Your task to perform on an android device: Do I have any events today? Image 0: 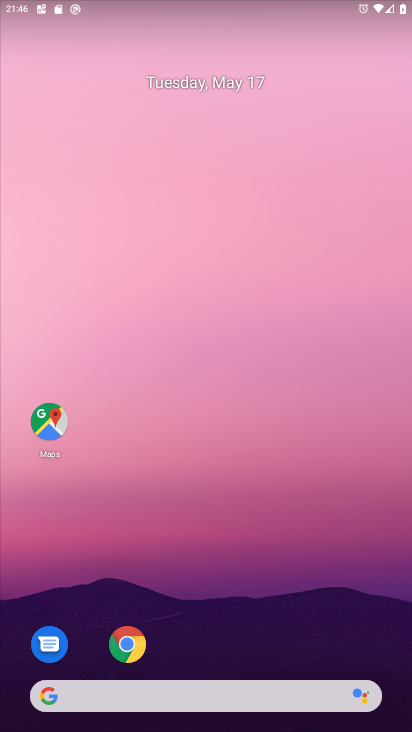
Step 0: drag from (244, 648) to (272, 95)
Your task to perform on an android device: Do I have any events today? Image 1: 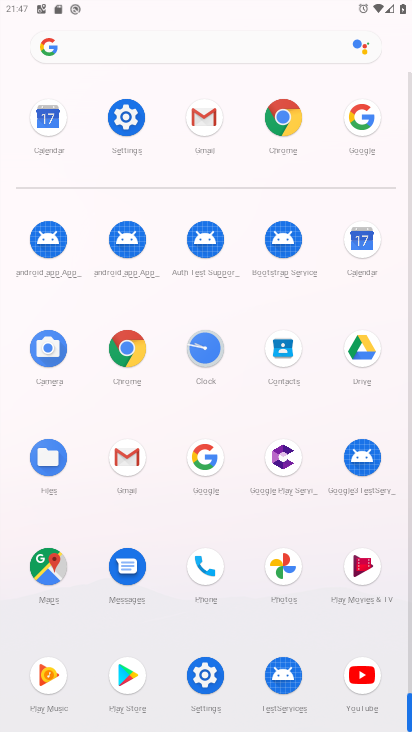
Step 1: click (359, 239)
Your task to perform on an android device: Do I have any events today? Image 2: 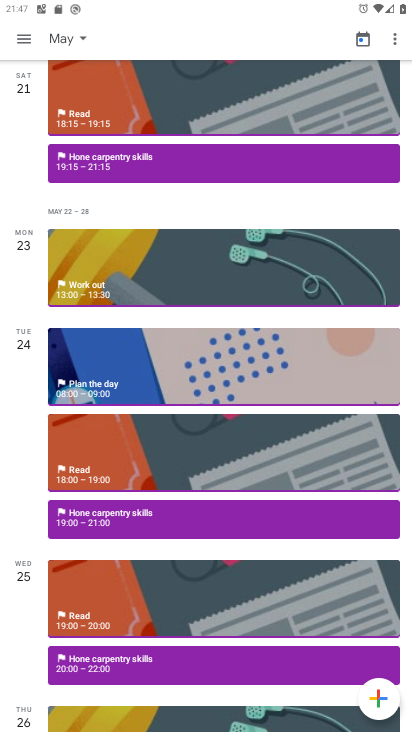
Step 2: drag from (33, 118) to (17, 726)
Your task to perform on an android device: Do I have any events today? Image 3: 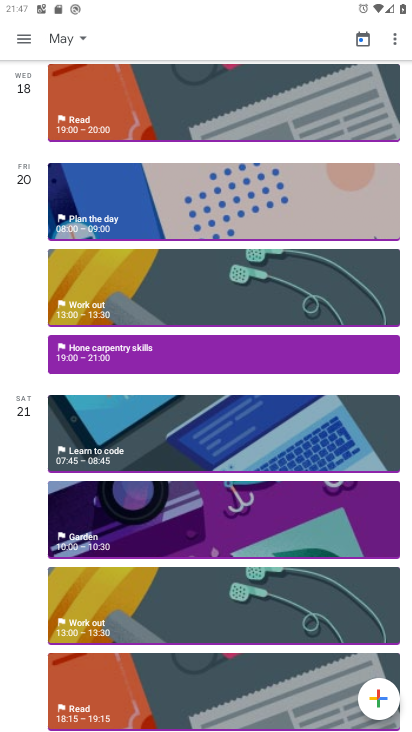
Step 3: drag from (33, 252) to (44, 700)
Your task to perform on an android device: Do I have any events today? Image 4: 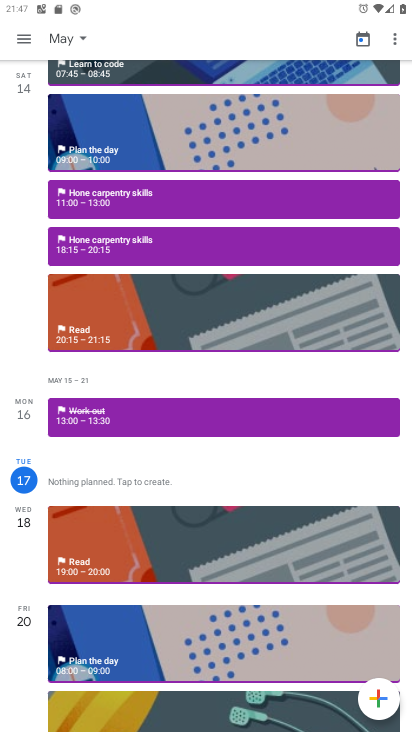
Step 4: click (27, 498)
Your task to perform on an android device: Do I have any events today? Image 5: 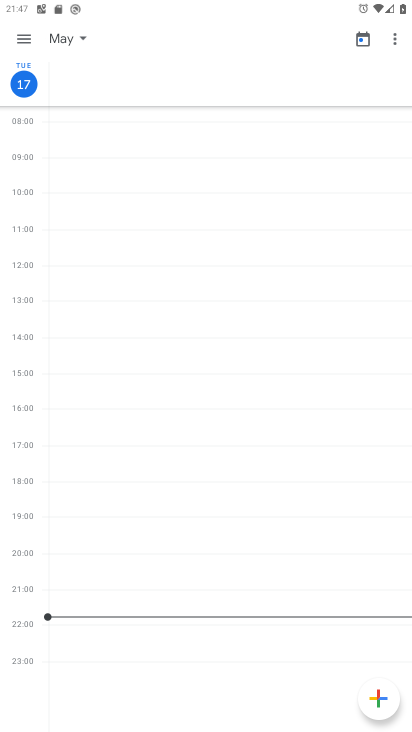
Step 5: drag from (26, 578) to (39, 398)
Your task to perform on an android device: Do I have any events today? Image 6: 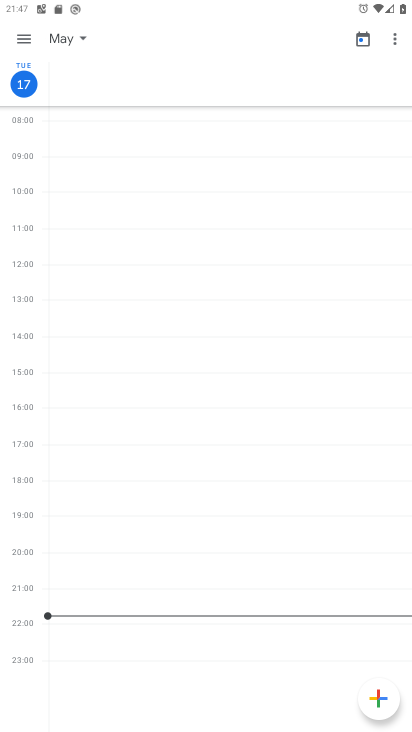
Step 6: click (39, 329)
Your task to perform on an android device: Do I have any events today? Image 7: 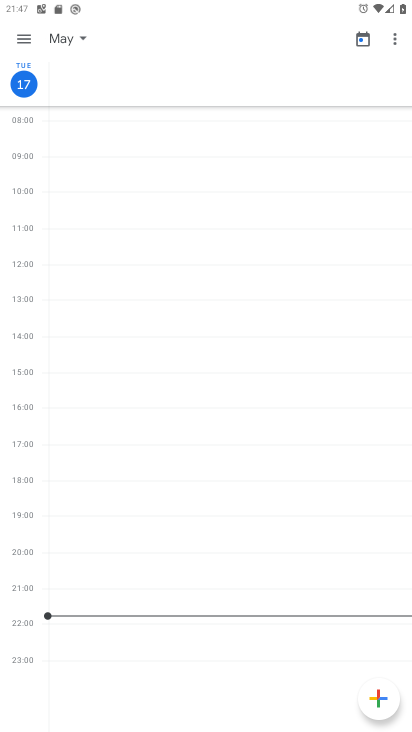
Step 7: task complete